Your task to perform on an android device: turn off airplane mode Image 0: 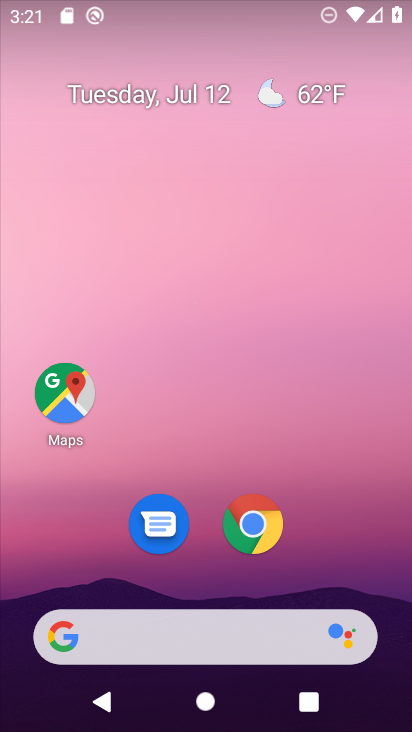
Step 0: drag from (310, 535) to (367, 2)
Your task to perform on an android device: turn off airplane mode Image 1: 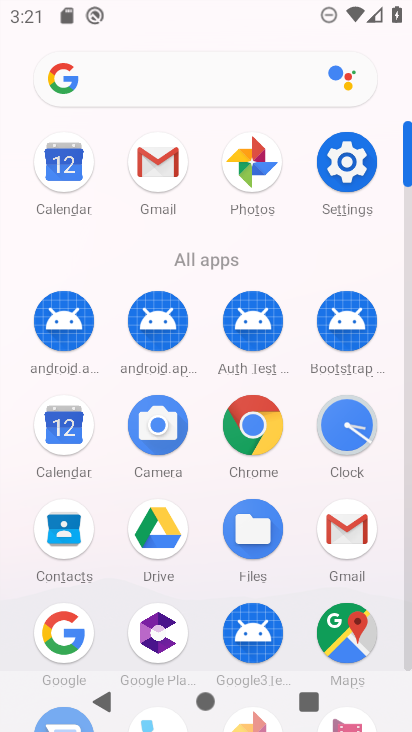
Step 1: click (339, 155)
Your task to perform on an android device: turn off airplane mode Image 2: 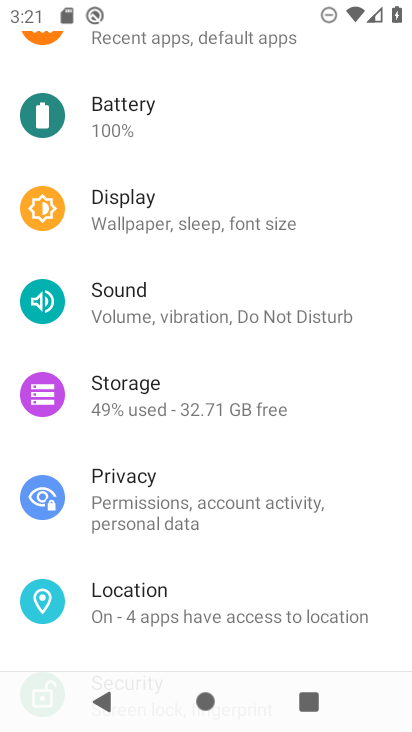
Step 2: drag from (197, 159) to (209, 613)
Your task to perform on an android device: turn off airplane mode Image 3: 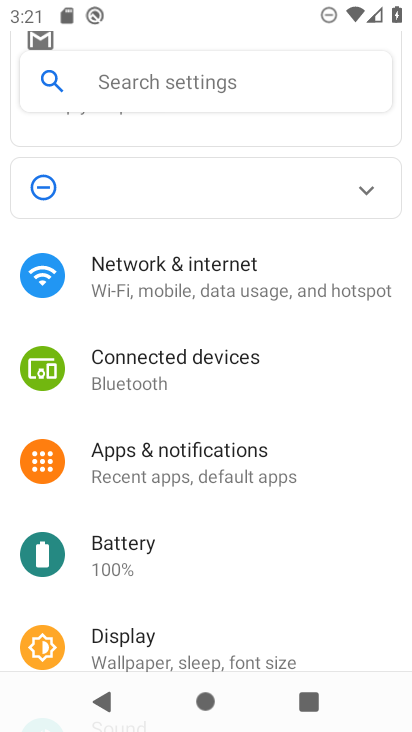
Step 3: click (253, 281)
Your task to perform on an android device: turn off airplane mode Image 4: 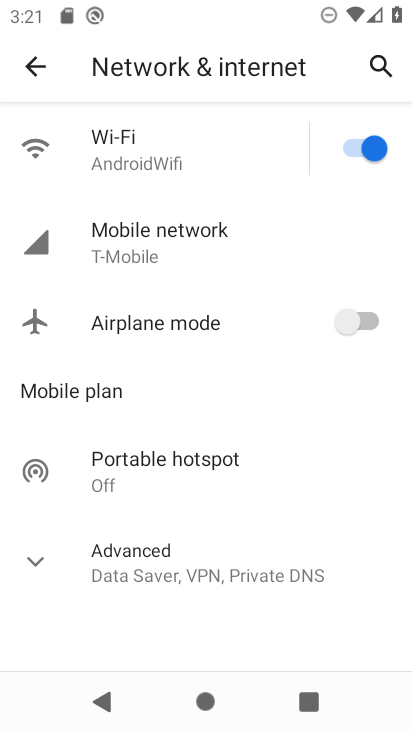
Step 4: task complete